Your task to perform on an android device: Go to wifi settings Image 0: 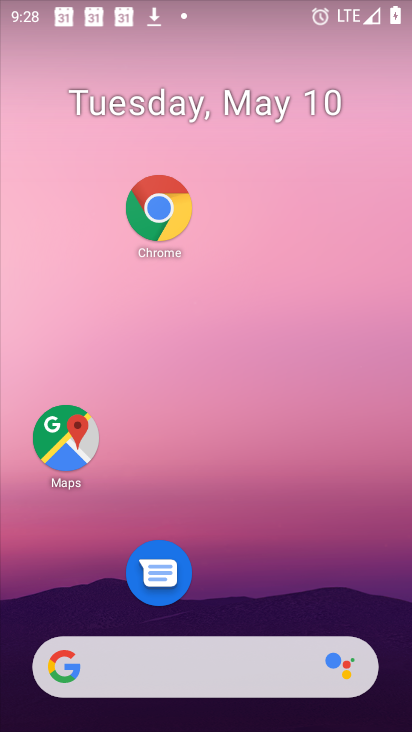
Step 0: drag from (293, 675) to (300, 155)
Your task to perform on an android device: Go to wifi settings Image 1: 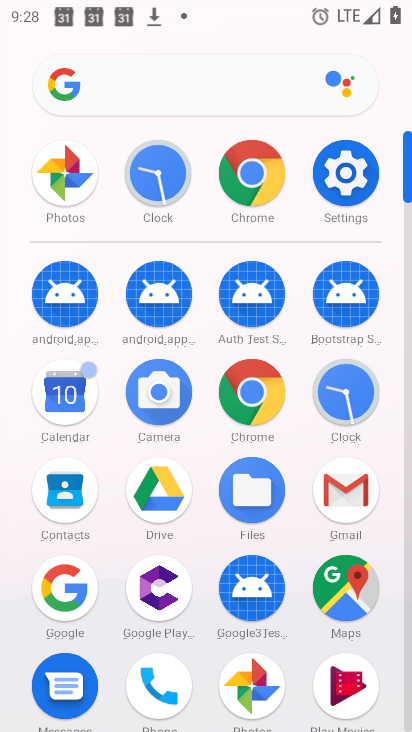
Step 1: click (343, 189)
Your task to perform on an android device: Go to wifi settings Image 2: 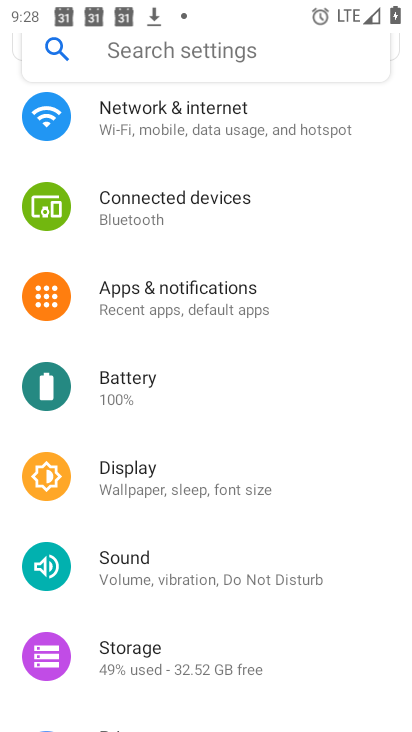
Step 2: click (168, 121)
Your task to perform on an android device: Go to wifi settings Image 3: 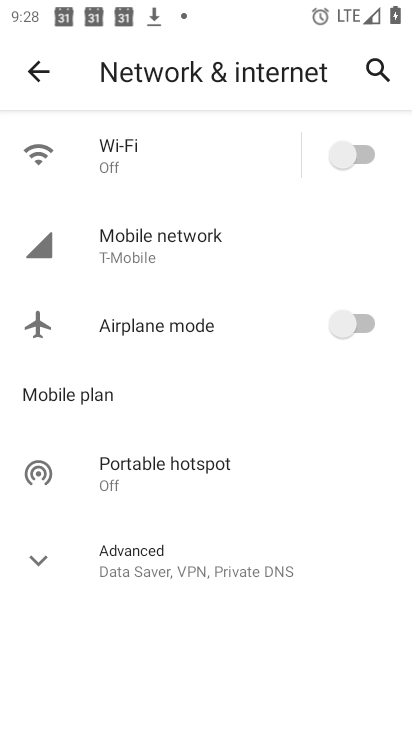
Step 3: click (150, 150)
Your task to perform on an android device: Go to wifi settings Image 4: 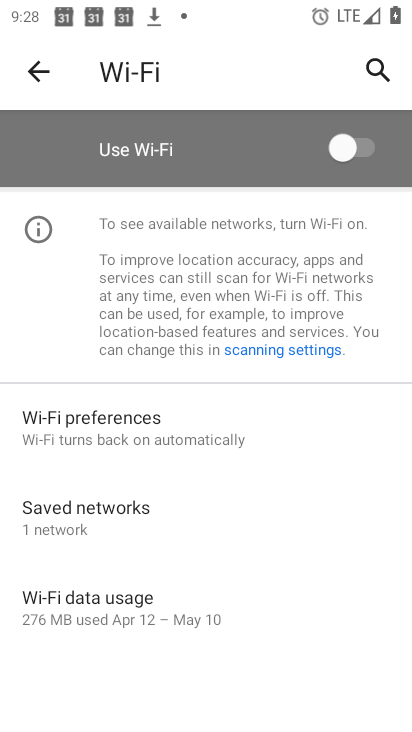
Step 4: task complete